Your task to perform on an android device: add a contact in the contacts app Image 0: 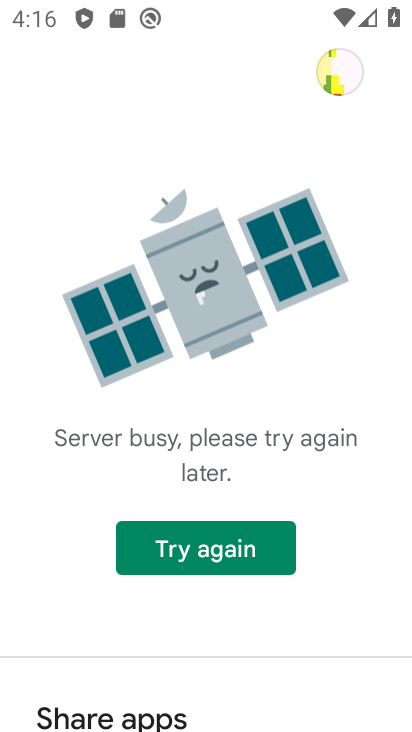
Step 0: press back button
Your task to perform on an android device: add a contact in the contacts app Image 1: 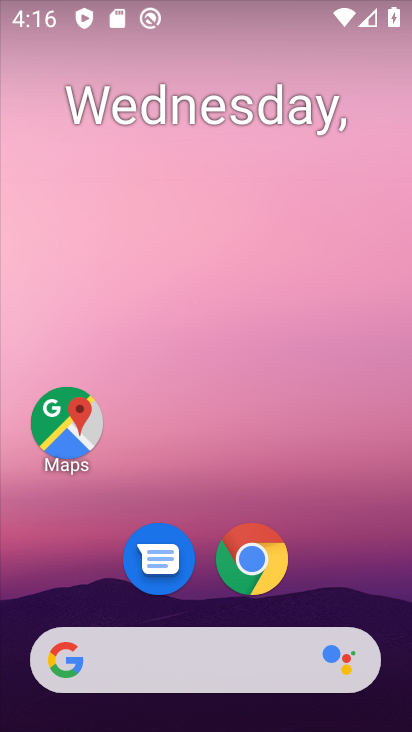
Step 1: drag from (53, 614) to (204, 149)
Your task to perform on an android device: add a contact in the contacts app Image 2: 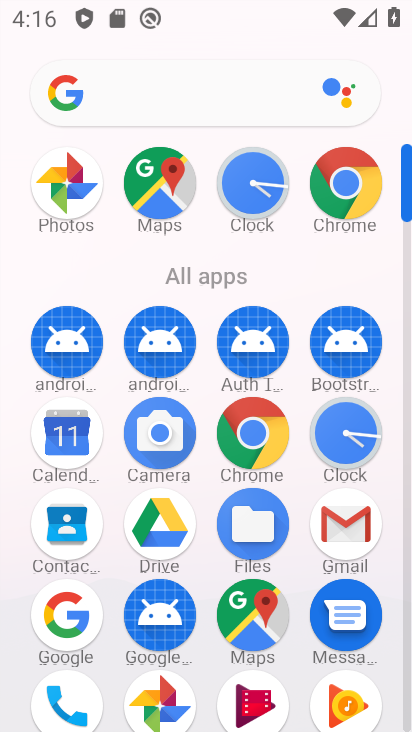
Step 2: click (72, 548)
Your task to perform on an android device: add a contact in the contacts app Image 3: 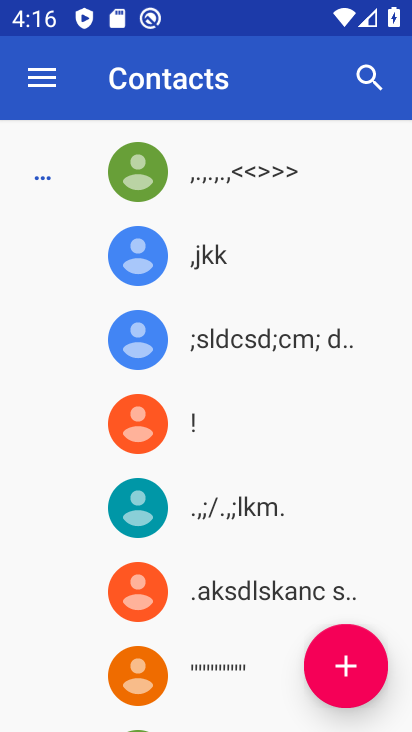
Step 3: click (350, 677)
Your task to perform on an android device: add a contact in the contacts app Image 4: 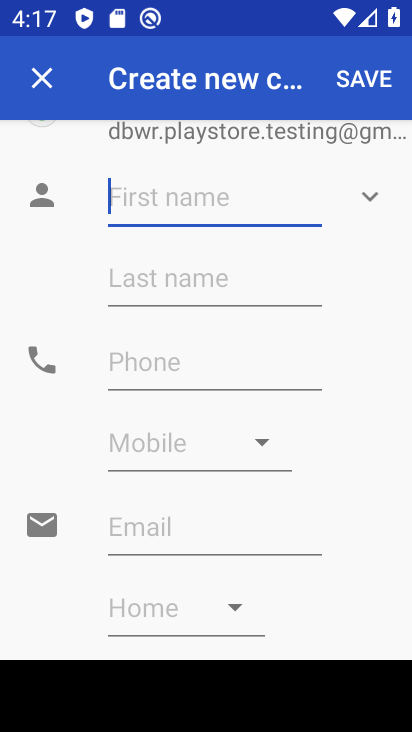
Step 4: type "bnbnb"
Your task to perform on an android device: add a contact in the contacts app Image 5: 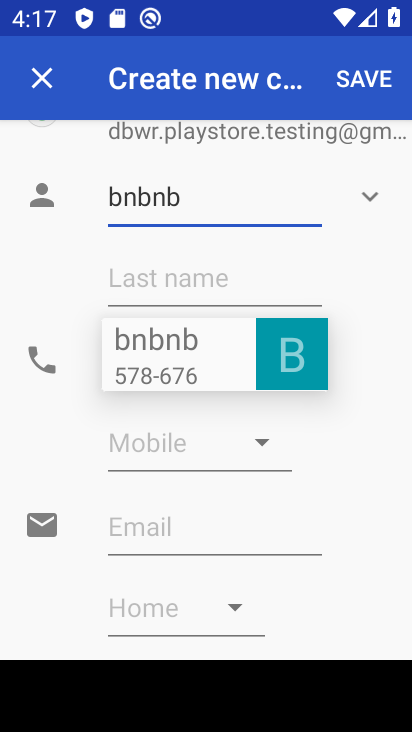
Step 5: type "n"
Your task to perform on an android device: add a contact in the contacts app Image 6: 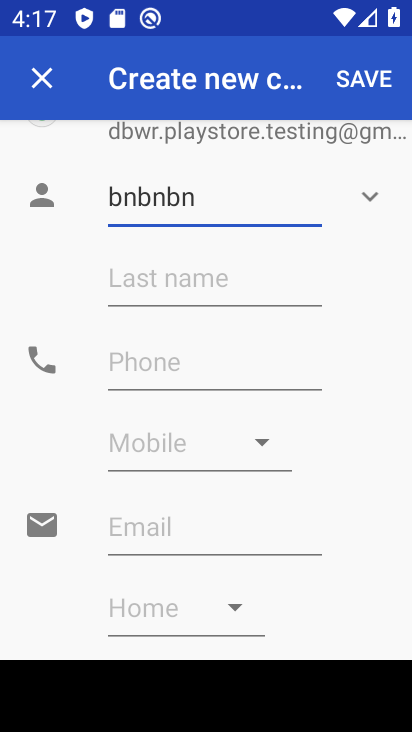
Step 6: click (164, 355)
Your task to perform on an android device: add a contact in the contacts app Image 7: 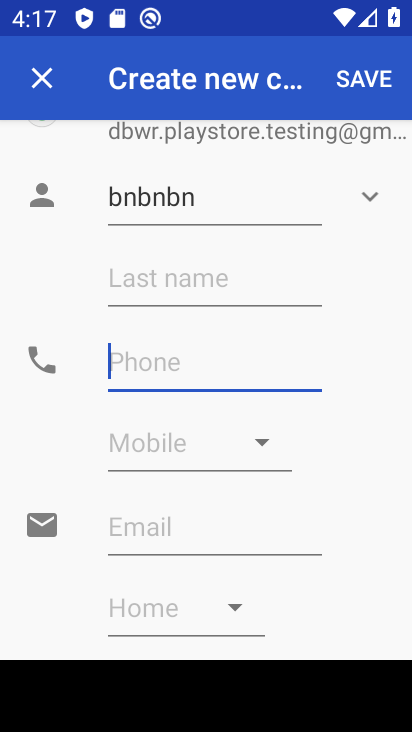
Step 7: type "1233211231"
Your task to perform on an android device: add a contact in the contacts app Image 8: 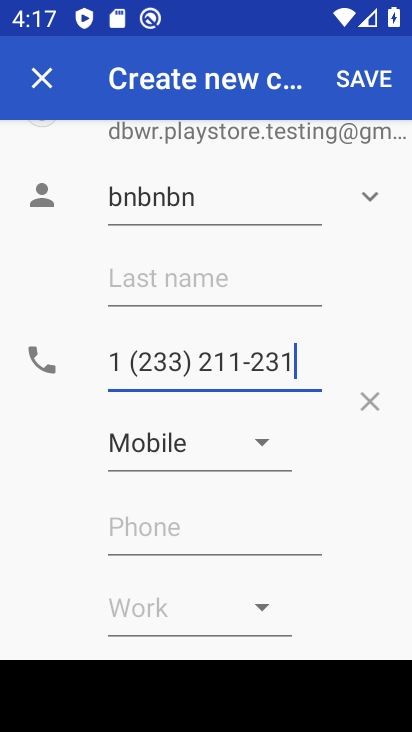
Step 8: click (357, 56)
Your task to perform on an android device: add a contact in the contacts app Image 9: 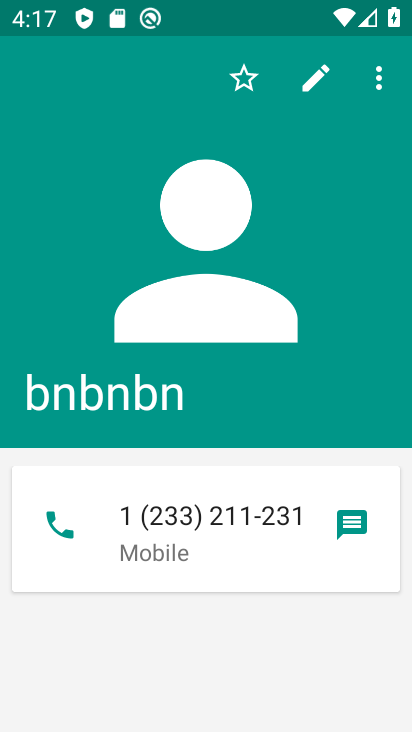
Step 9: task complete